Your task to perform on an android device: open wifi settings Image 0: 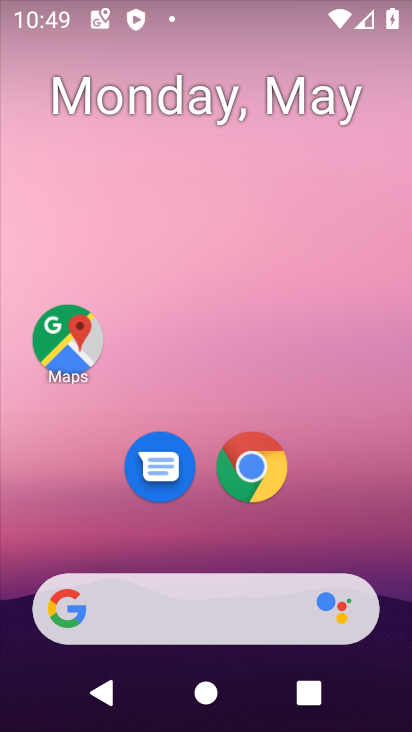
Step 0: drag from (403, 605) to (327, 89)
Your task to perform on an android device: open wifi settings Image 1: 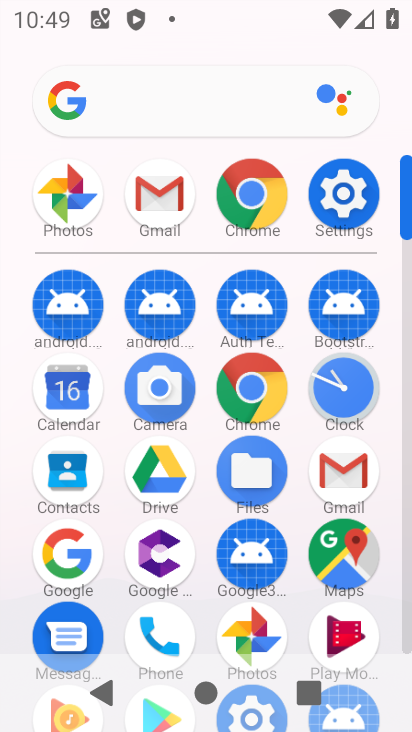
Step 1: click (405, 632)
Your task to perform on an android device: open wifi settings Image 2: 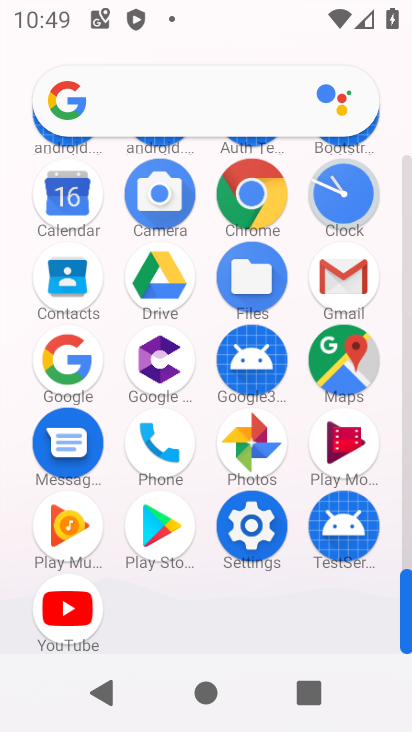
Step 2: click (253, 526)
Your task to perform on an android device: open wifi settings Image 3: 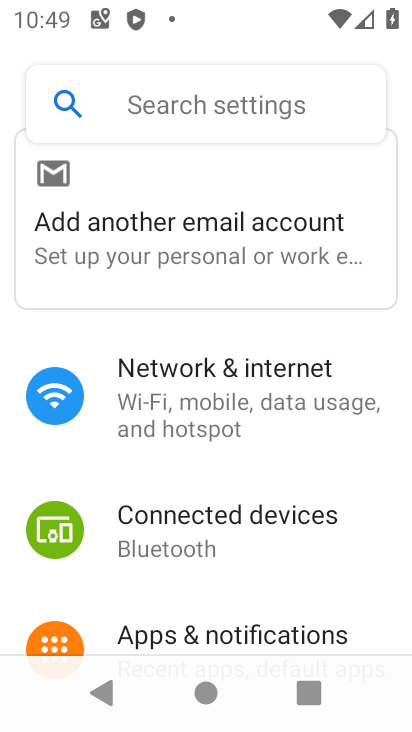
Step 3: click (171, 375)
Your task to perform on an android device: open wifi settings Image 4: 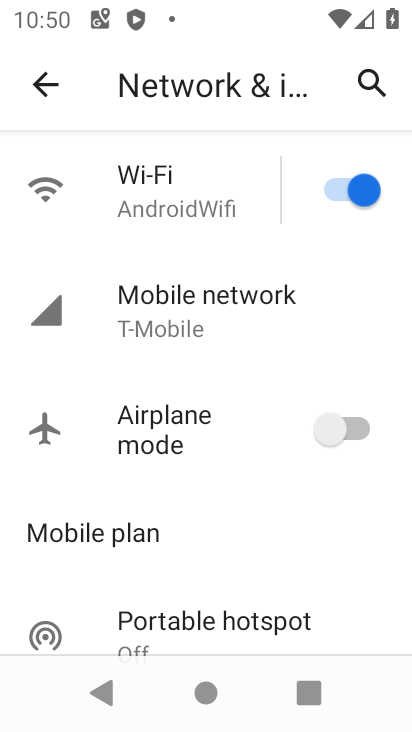
Step 4: click (134, 194)
Your task to perform on an android device: open wifi settings Image 5: 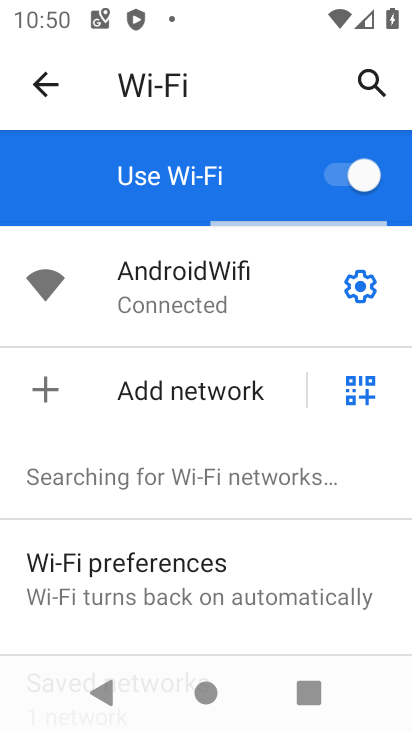
Step 5: drag from (242, 601) to (215, 201)
Your task to perform on an android device: open wifi settings Image 6: 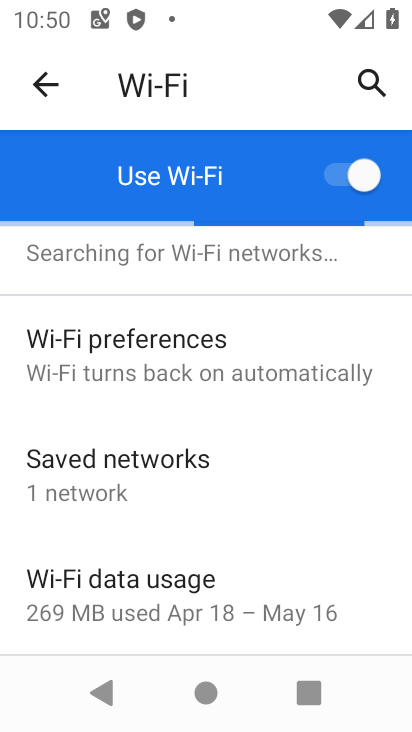
Step 6: drag from (276, 548) to (230, 246)
Your task to perform on an android device: open wifi settings Image 7: 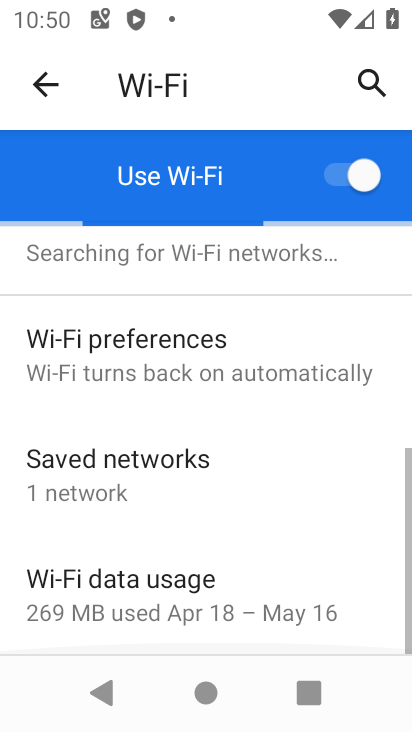
Step 7: drag from (229, 264) to (177, 636)
Your task to perform on an android device: open wifi settings Image 8: 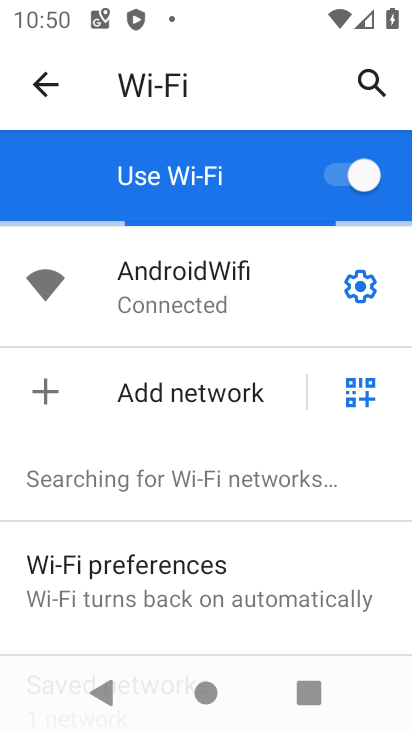
Step 8: click (355, 285)
Your task to perform on an android device: open wifi settings Image 9: 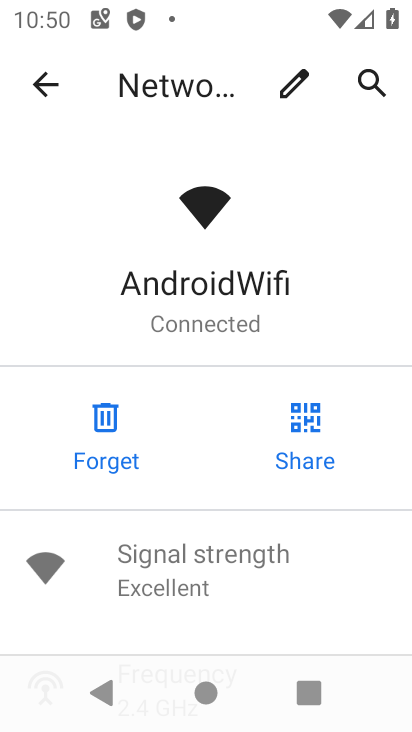
Step 9: drag from (208, 597) to (200, 83)
Your task to perform on an android device: open wifi settings Image 10: 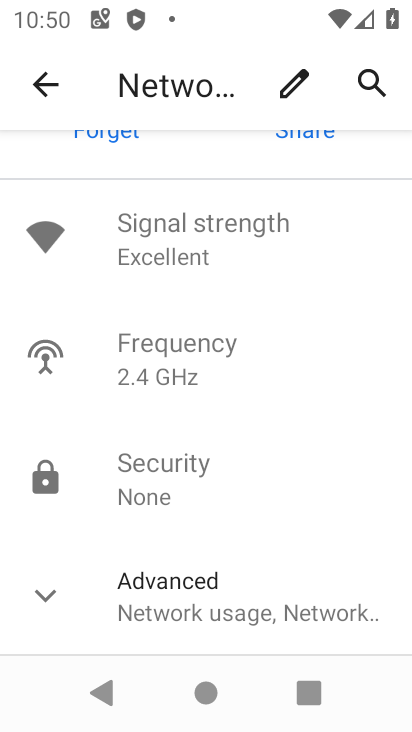
Step 10: click (37, 593)
Your task to perform on an android device: open wifi settings Image 11: 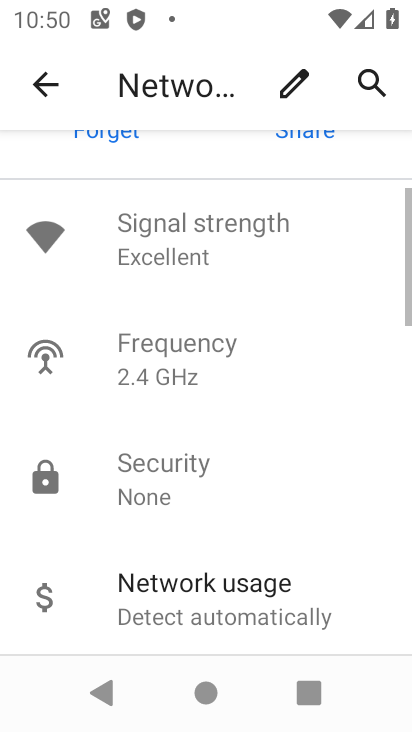
Step 11: task complete